Your task to perform on an android device: Go to Google maps Image 0: 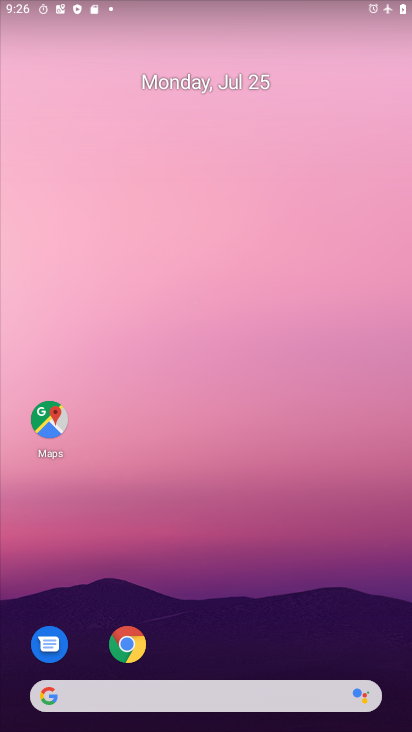
Step 0: drag from (209, 610) to (233, 90)
Your task to perform on an android device: Go to Google maps Image 1: 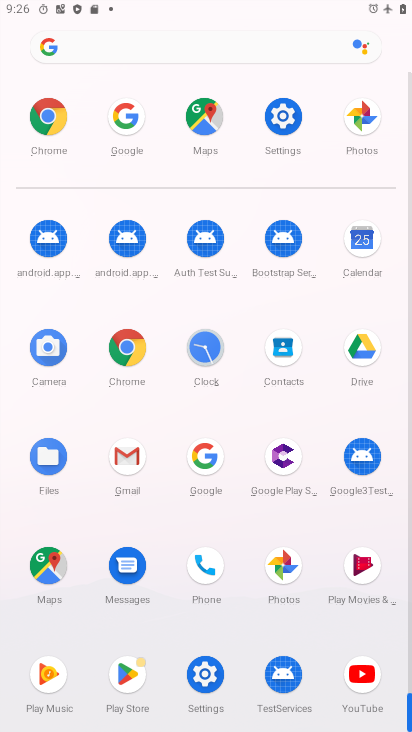
Step 1: click (192, 137)
Your task to perform on an android device: Go to Google maps Image 2: 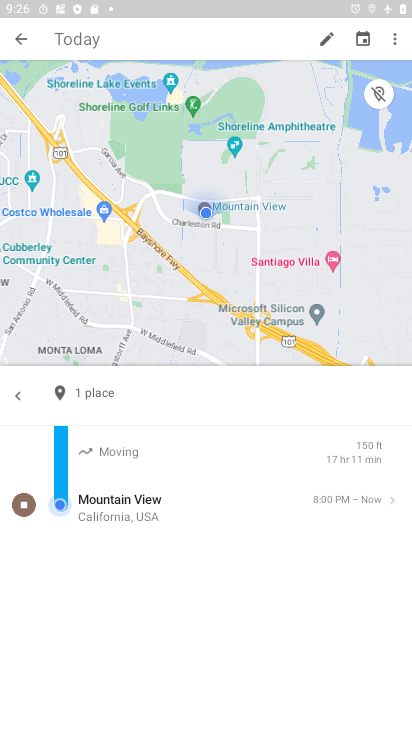
Step 2: task complete